Your task to perform on an android device: Open Youtube and go to the subscriptions tab Image 0: 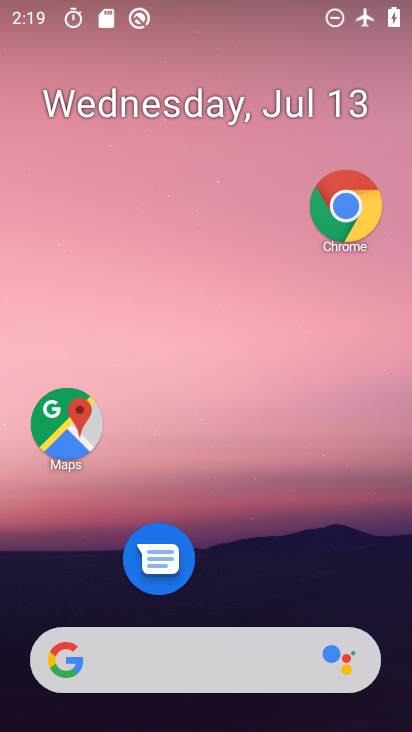
Step 0: drag from (228, 661) to (267, 217)
Your task to perform on an android device: Open Youtube and go to the subscriptions tab Image 1: 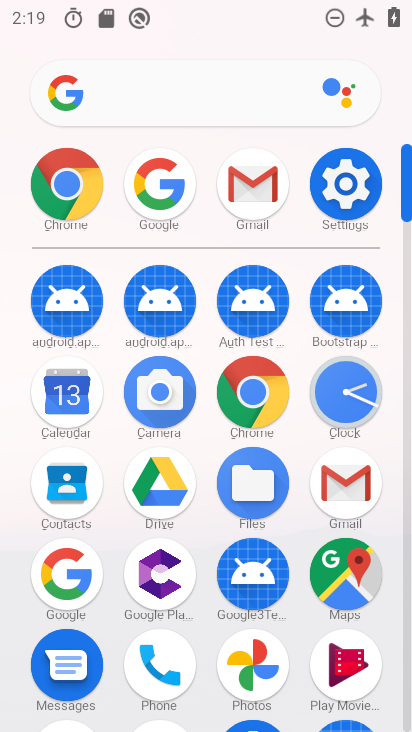
Step 1: drag from (253, 564) to (264, 377)
Your task to perform on an android device: Open Youtube and go to the subscriptions tab Image 2: 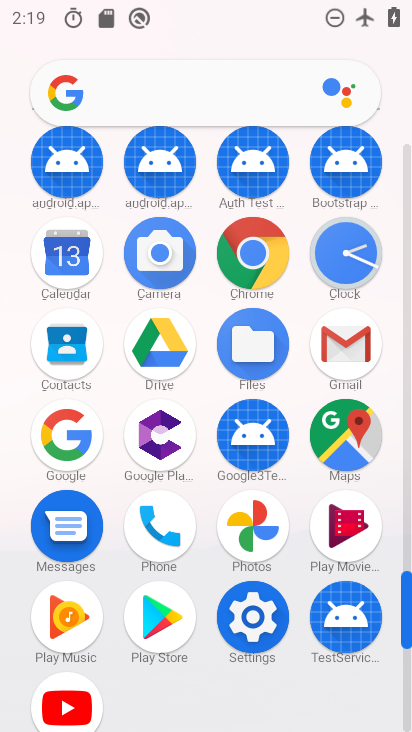
Step 2: click (66, 707)
Your task to perform on an android device: Open Youtube and go to the subscriptions tab Image 3: 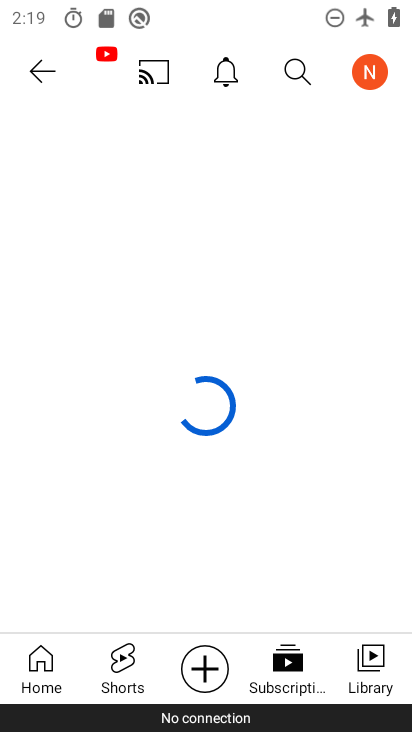
Step 3: task complete